Your task to perform on an android device: Search for Mexican restaurants on Maps Image 0: 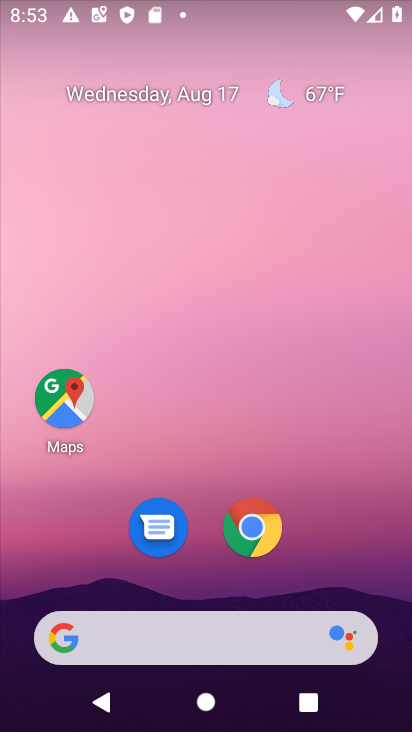
Step 0: click (63, 390)
Your task to perform on an android device: Search for Mexican restaurants on Maps Image 1: 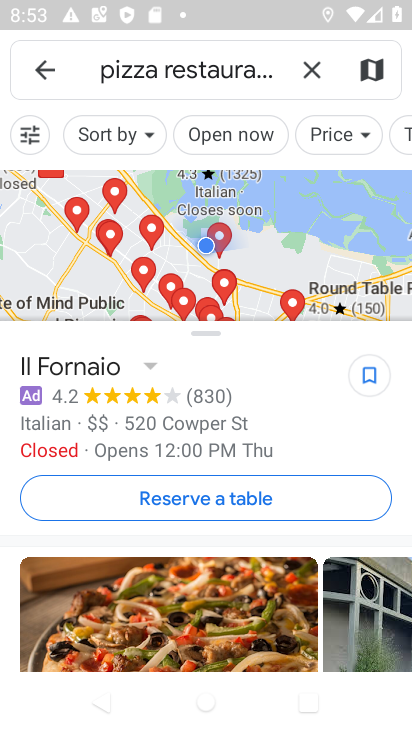
Step 1: click (308, 72)
Your task to perform on an android device: Search for Mexican restaurants on Maps Image 2: 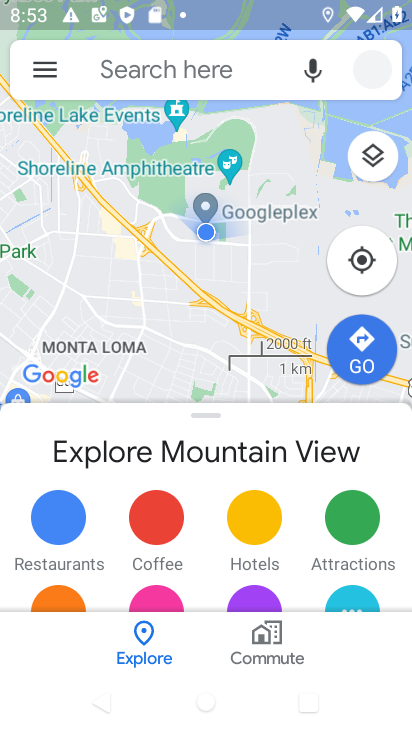
Step 2: click (261, 65)
Your task to perform on an android device: Search for Mexican restaurants on Maps Image 3: 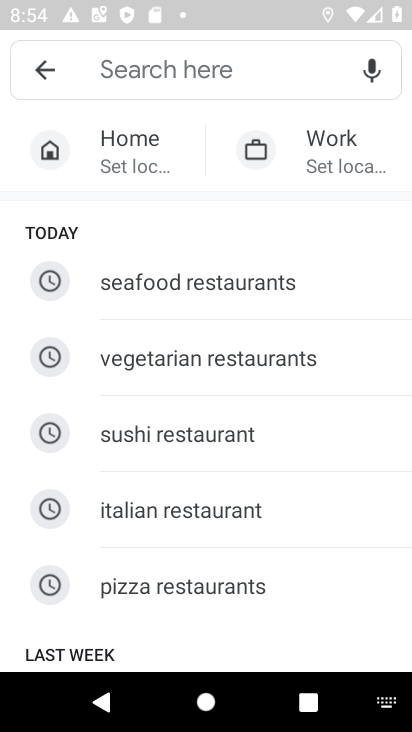
Step 3: type "mexican restaurant"
Your task to perform on an android device: Search for Mexican restaurants on Maps Image 4: 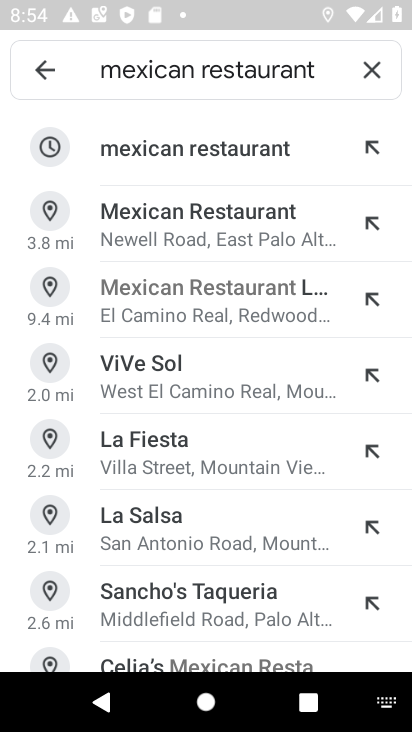
Step 4: click (230, 200)
Your task to perform on an android device: Search for Mexican restaurants on Maps Image 5: 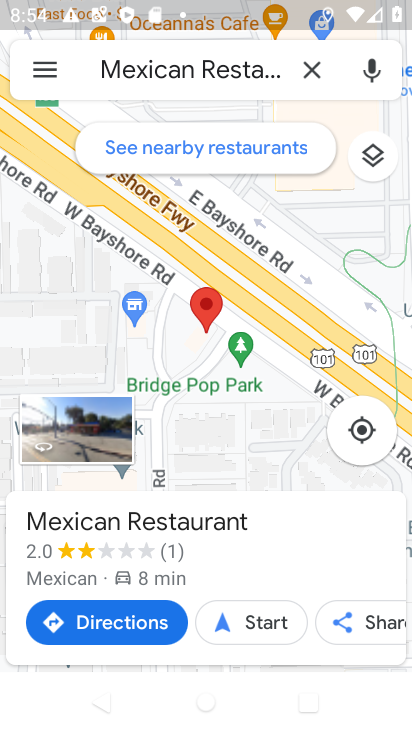
Step 5: task complete